Your task to perform on an android device: Open display settings Image 0: 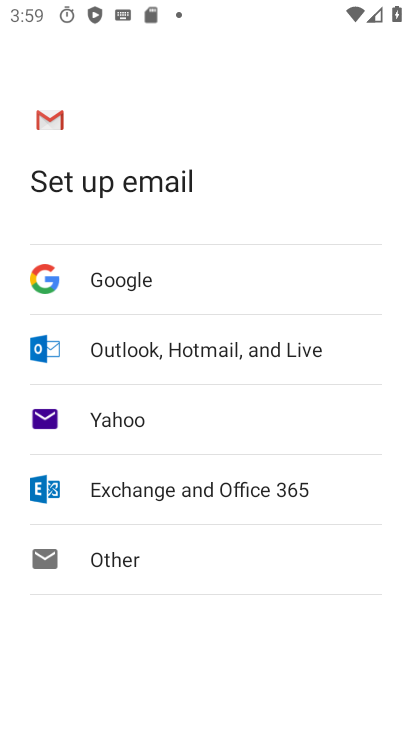
Step 0: press home button
Your task to perform on an android device: Open display settings Image 1: 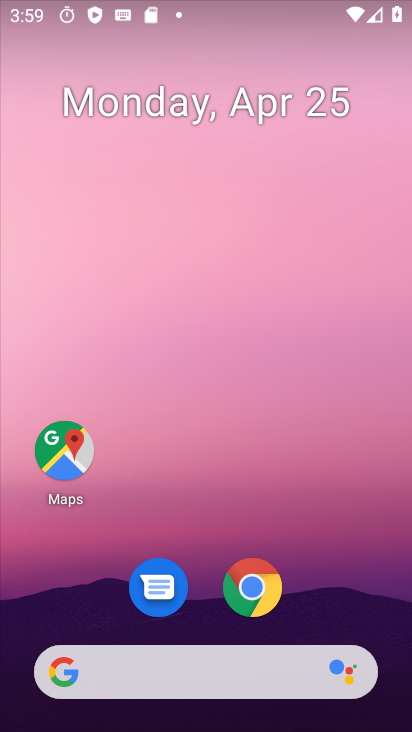
Step 1: drag from (317, 580) to (277, 166)
Your task to perform on an android device: Open display settings Image 2: 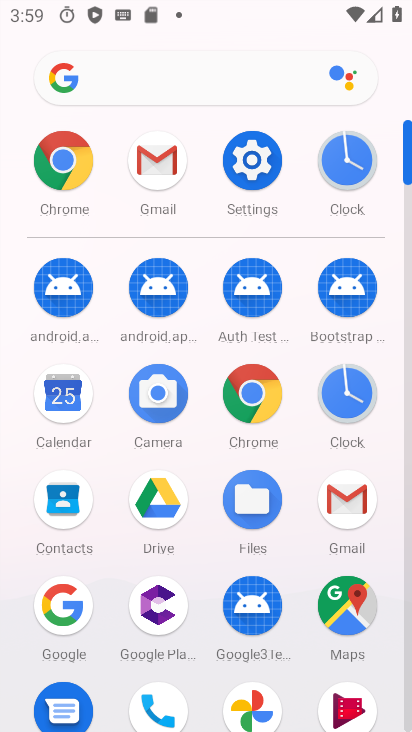
Step 2: drag from (294, 540) to (303, 184)
Your task to perform on an android device: Open display settings Image 3: 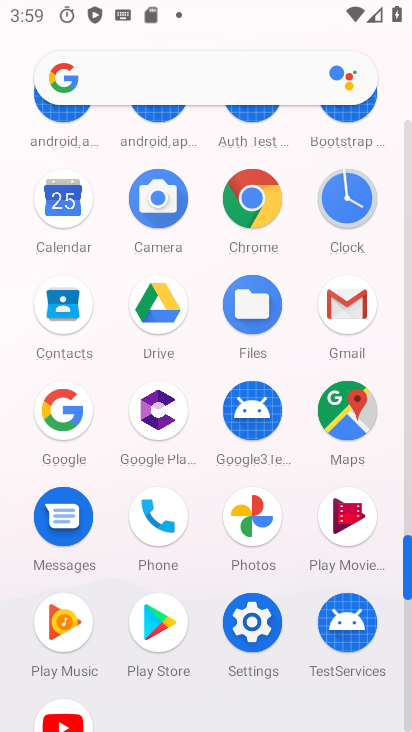
Step 3: click (266, 621)
Your task to perform on an android device: Open display settings Image 4: 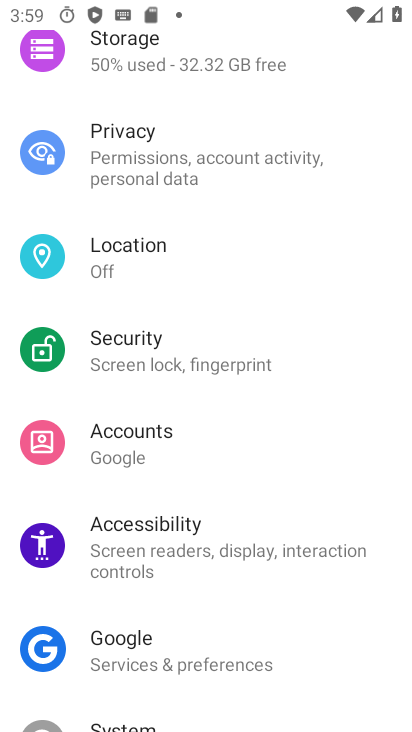
Step 4: drag from (209, 636) to (285, 728)
Your task to perform on an android device: Open display settings Image 5: 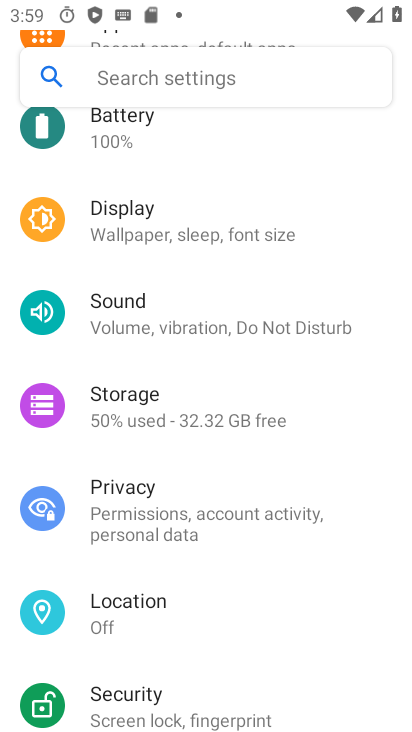
Step 5: drag from (271, 268) to (245, 698)
Your task to perform on an android device: Open display settings Image 6: 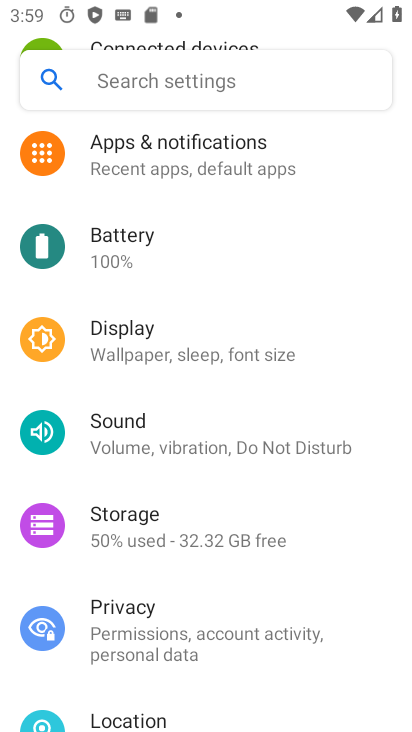
Step 6: click (175, 342)
Your task to perform on an android device: Open display settings Image 7: 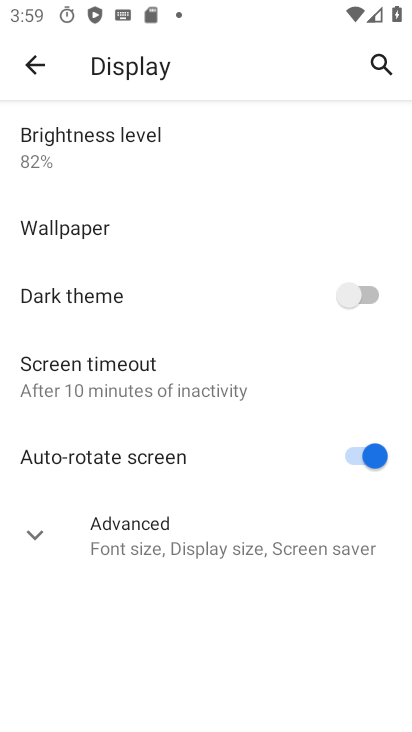
Step 7: task complete